Your task to perform on an android device: Check the weather Image 0: 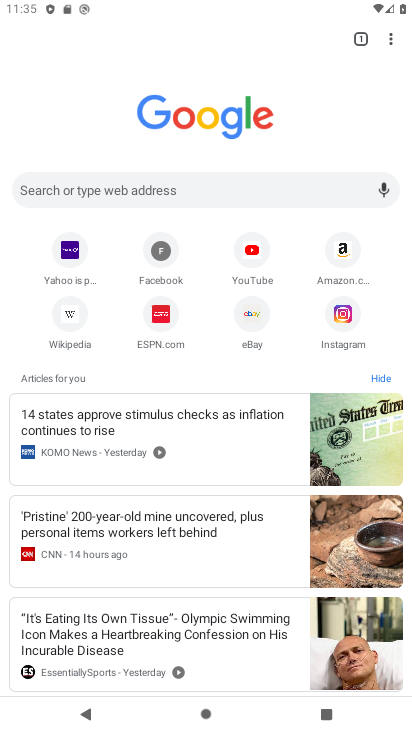
Step 0: press back button
Your task to perform on an android device: Check the weather Image 1: 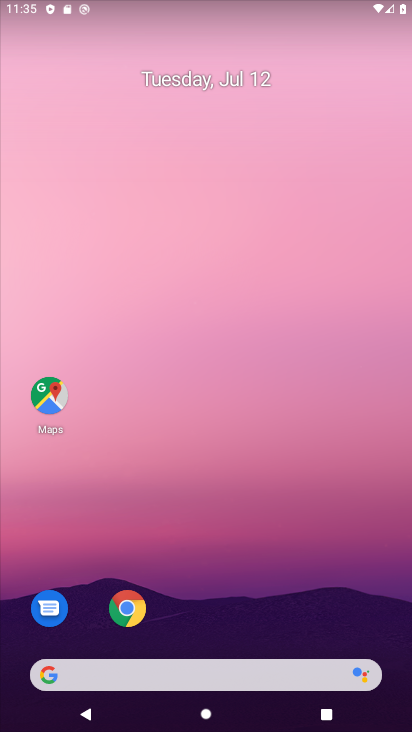
Step 1: click (198, 672)
Your task to perform on an android device: Check the weather Image 2: 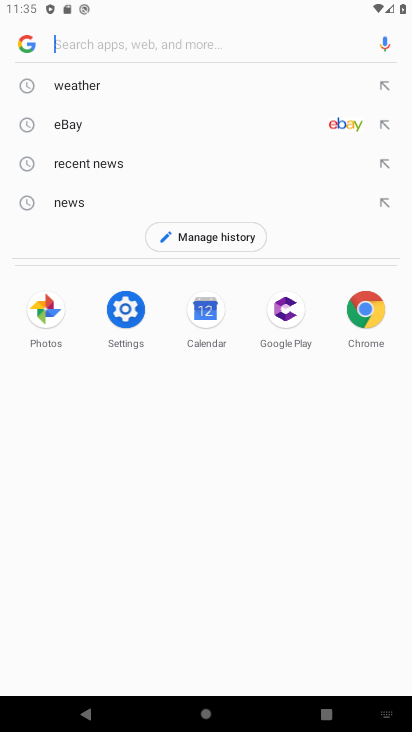
Step 2: click (95, 76)
Your task to perform on an android device: Check the weather Image 3: 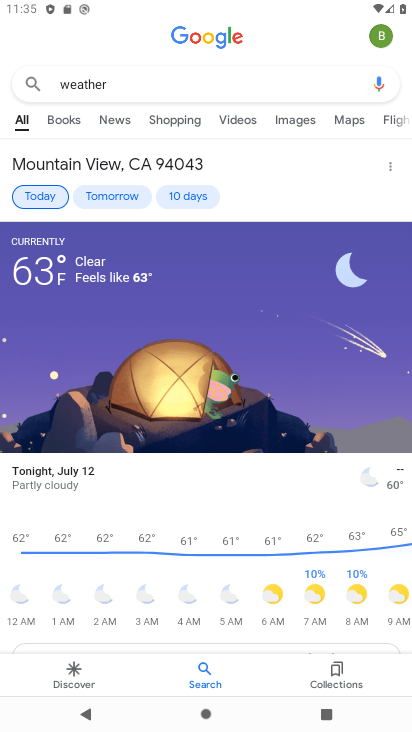
Step 3: task complete